Your task to perform on an android device: Empty the shopping cart on ebay.com. Add "panasonic triple a" to the cart on ebay.com, then select checkout. Image 0: 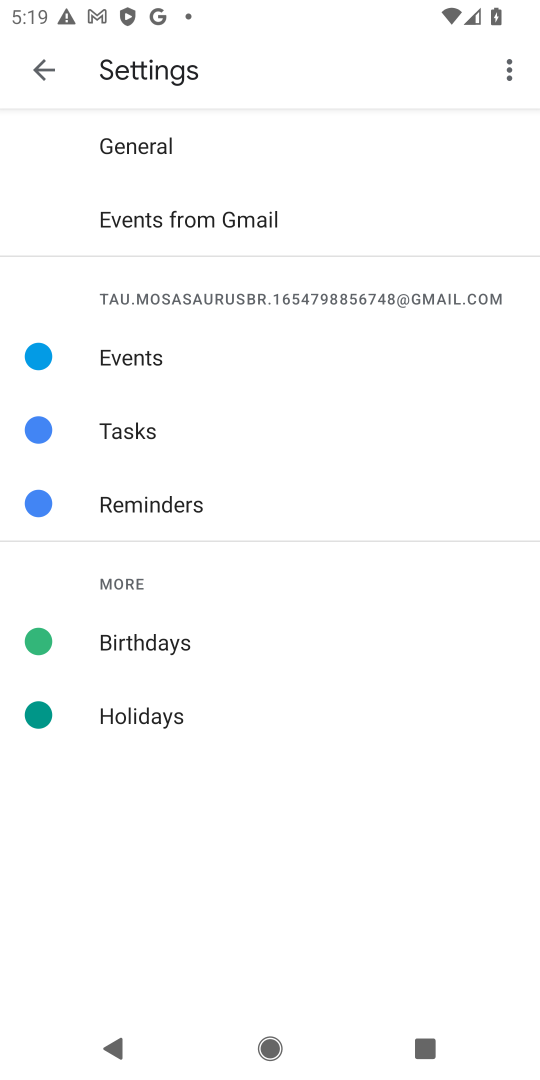
Step 0: press home button
Your task to perform on an android device: Empty the shopping cart on ebay.com. Add "panasonic triple a" to the cart on ebay.com, then select checkout. Image 1: 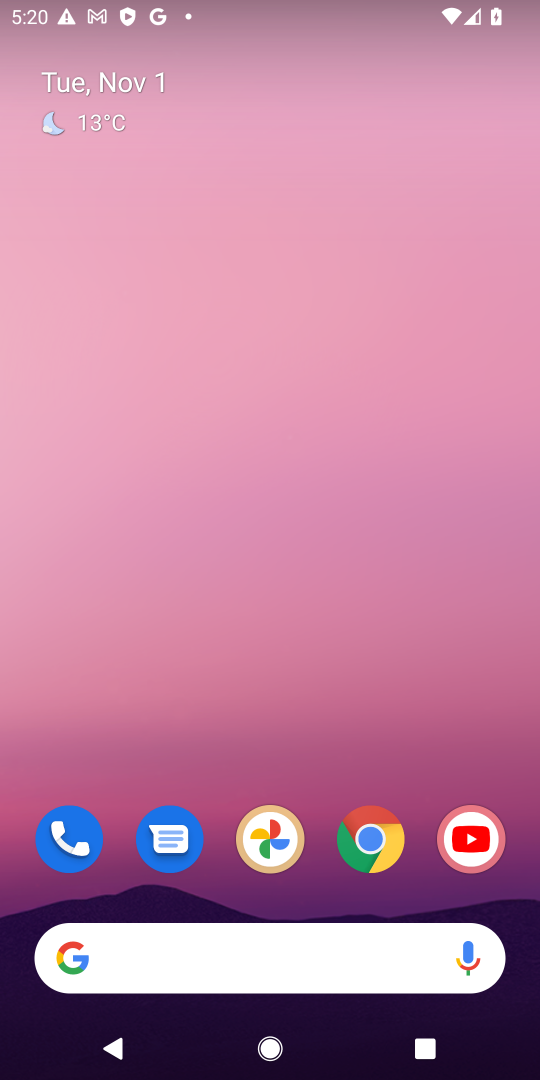
Step 1: click (372, 850)
Your task to perform on an android device: Empty the shopping cart on ebay.com. Add "panasonic triple a" to the cart on ebay.com, then select checkout. Image 2: 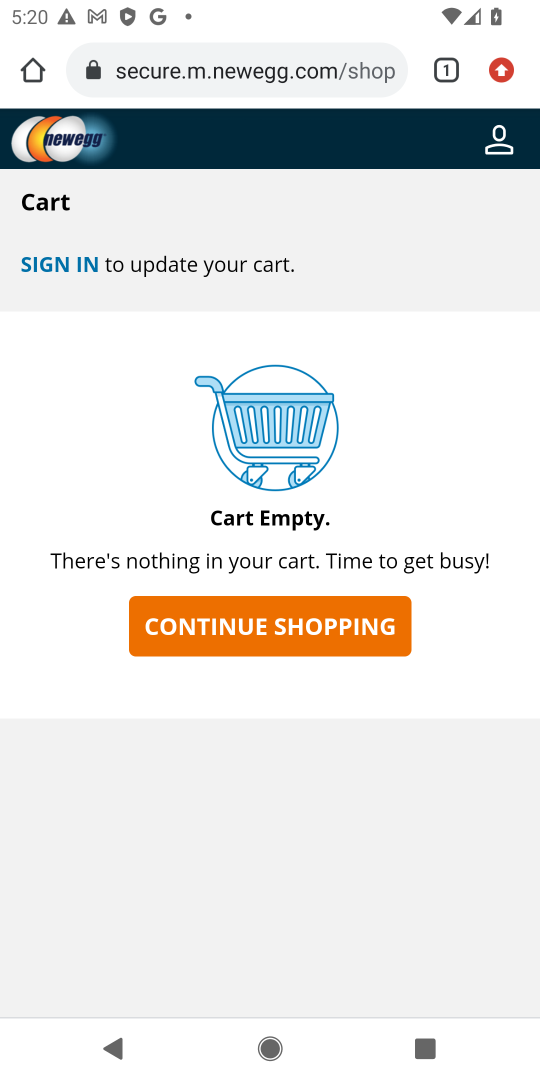
Step 2: click (242, 89)
Your task to perform on an android device: Empty the shopping cart on ebay.com. Add "panasonic triple a" to the cart on ebay.com, then select checkout. Image 3: 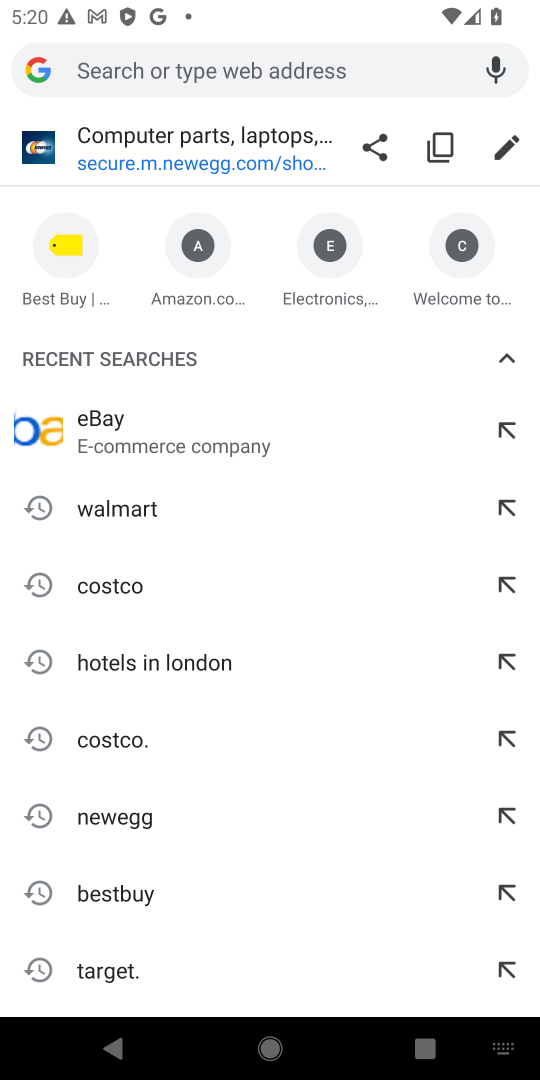
Step 3: type "ebay.com"
Your task to perform on an android device: Empty the shopping cart on ebay.com. Add "panasonic triple a" to the cart on ebay.com, then select checkout. Image 4: 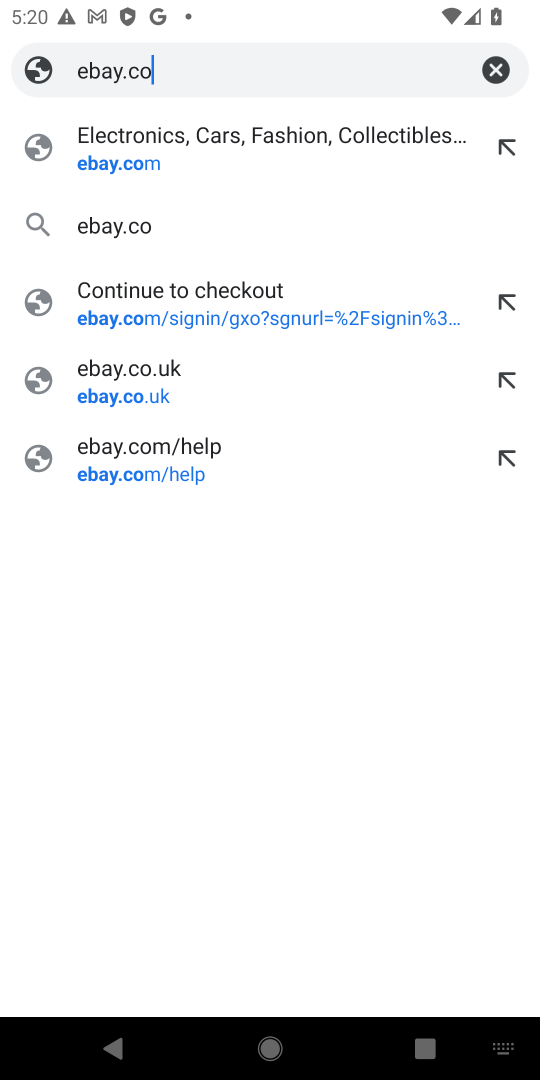
Step 4: press enter
Your task to perform on an android device: Empty the shopping cart on ebay.com. Add "panasonic triple a" to the cart on ebay.com, then select checkout. Image 5: 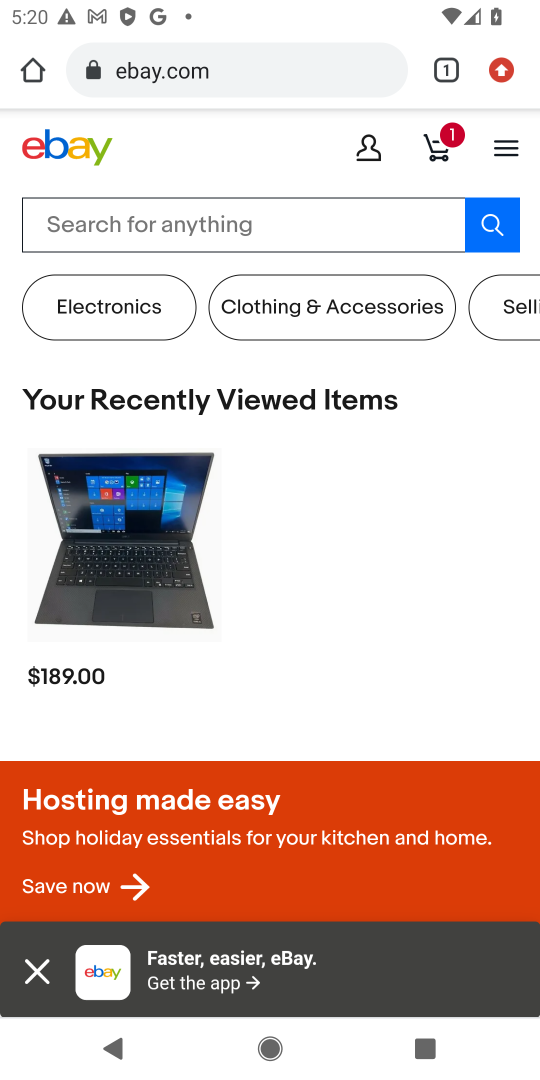
Step 5: click (437, 144)
Your task to perform on an android device: Empty the shopping cart on ebay.com. Add "panasonic triple a" to the cart on ebay.com, then select checkout. Image 6: 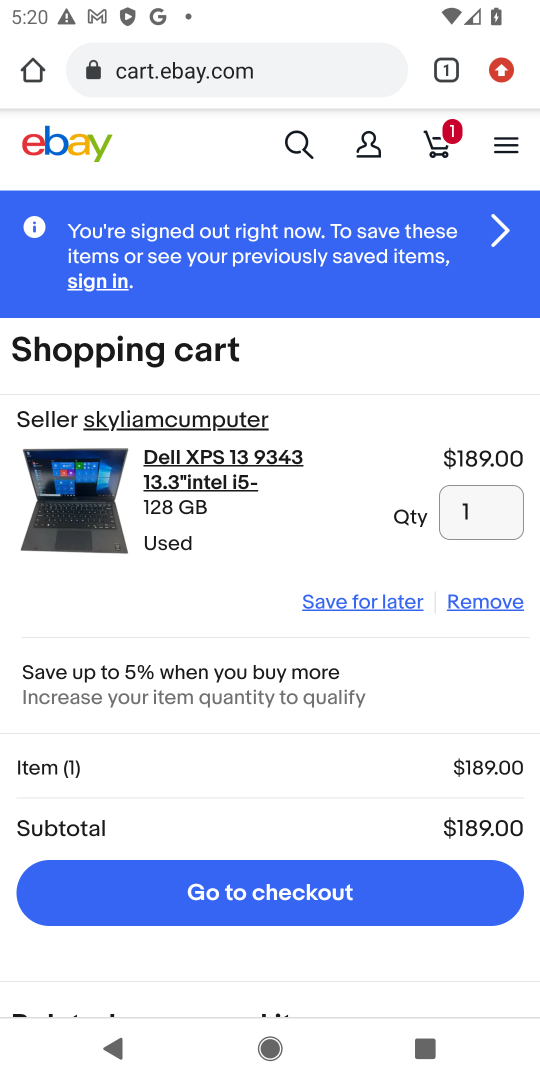
Step 6: click (468, 602)
Your task to perform on an android device: Empty the shopping cart on ebay.com. Add "panasonic triple a" to the cart on ebay.com, then select checkout. Image 7: 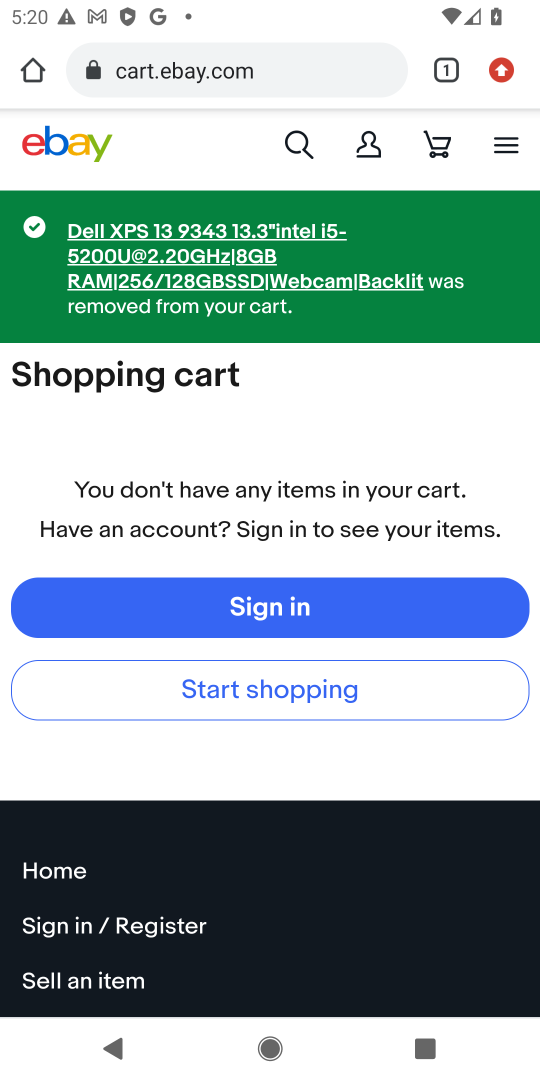
Step 7: click (300, 159)
Your task to perform on an android device: Empty the shopping cart on ebay.com. Add "panasonic triple a" to the cart on ebay.com, then select checkout. Image 8: 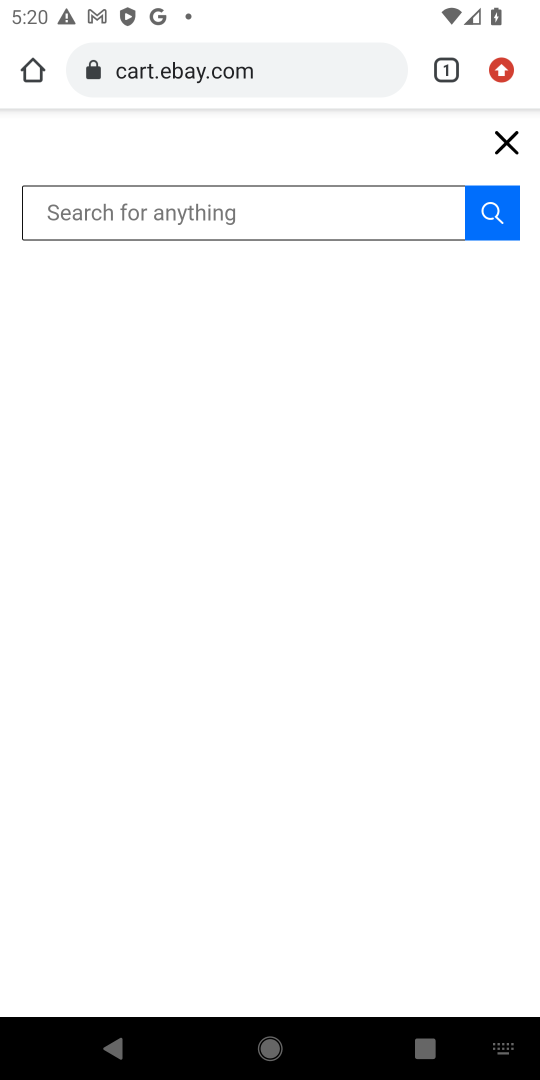
Step 8: type "panasonic triple a"
Your task to perform on an android device: Empty the shopping cart on ebay.com. Add "panasonic triple a" to the cart on ebay.com, then select checkout. Image 9: 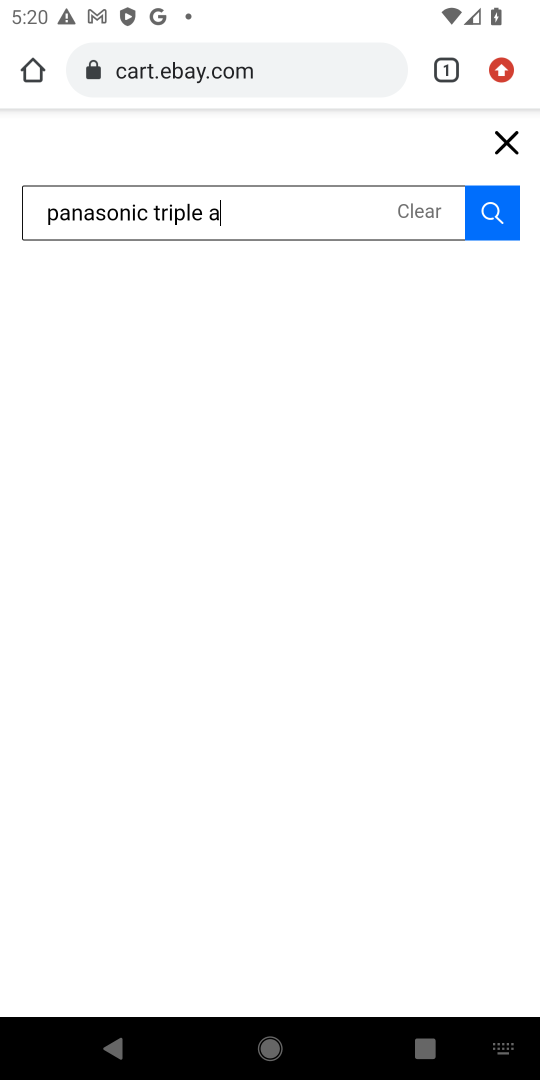
Step 9: click (499, 210)
Your task to perform on an android device: Empty the shopping cart on ebay.com. Add "panasonic triple a" to the cart on ebay.com, then select checkout. Image 10: 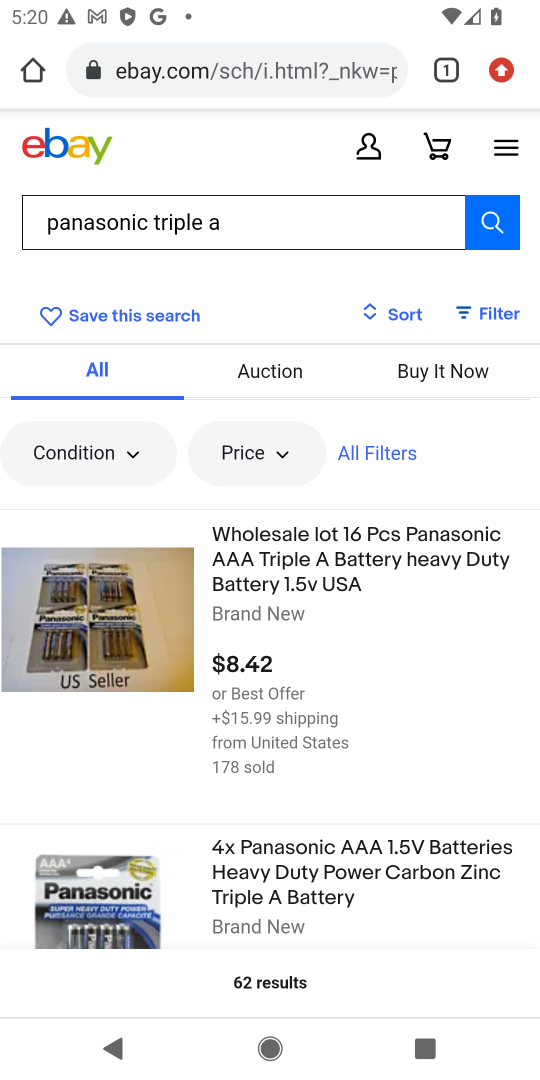
Step 10: drag from (198, 976) to (246, 772)
Your task to perform on an android device: Empty the shopping cart on ebay.com. Add "panasonic triple a" to the cart on ebay.com, then select checkout. Image 11: 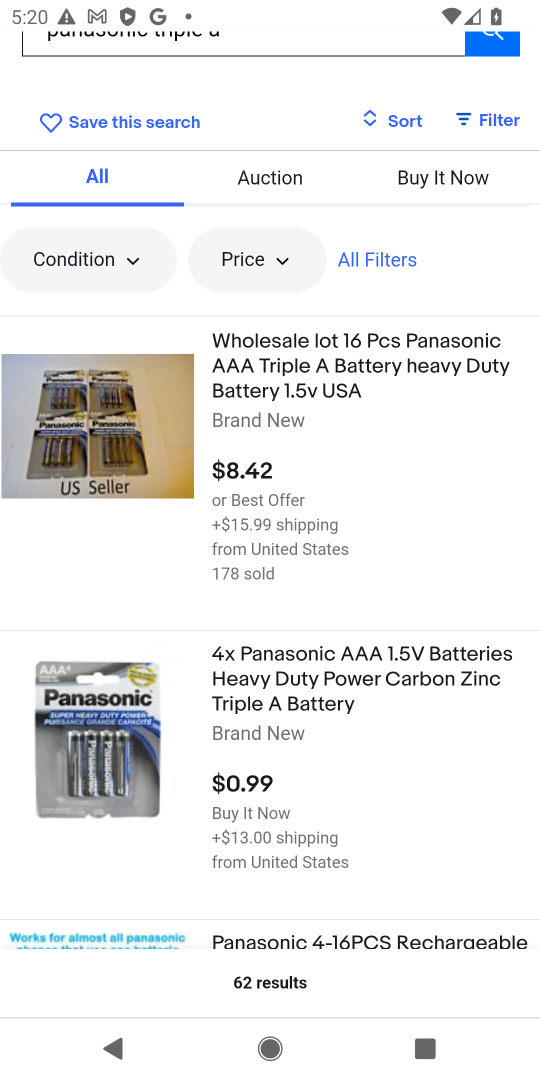
Step 11: drag from (421, 768) to (431, 666)
Your task to perform on an android device: Empty the shopping cart on ebay.com. Add "panasonic triple a" to the cart on ebay.com, then select checkout. Image 12: 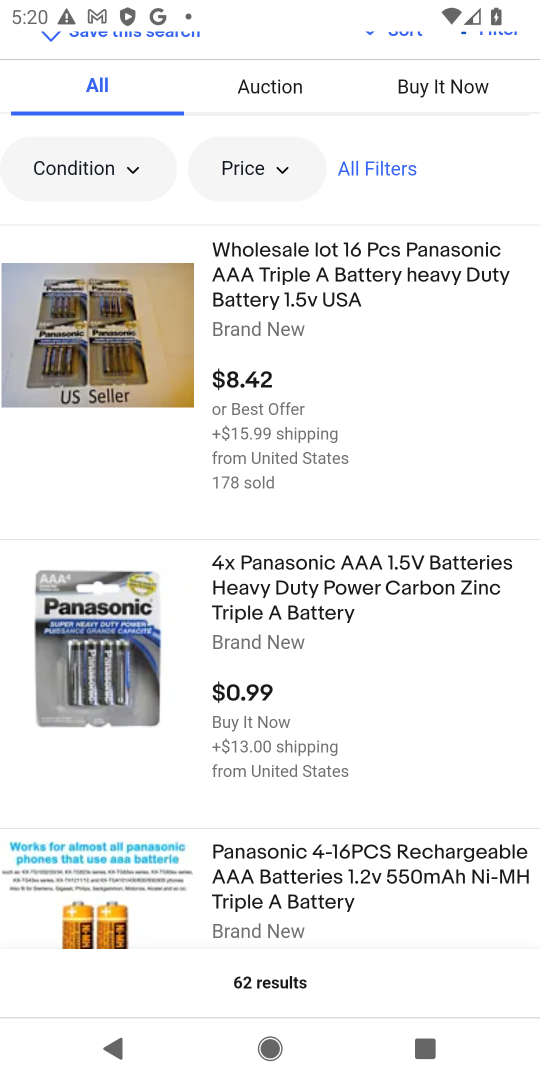
Step 12: click (94, 338)
Your task to perform on an android device: Empty the shopping cart on ebay.com. Add "panasonic triple a" to the cart on ebay.com, then select checkout. Image 13: 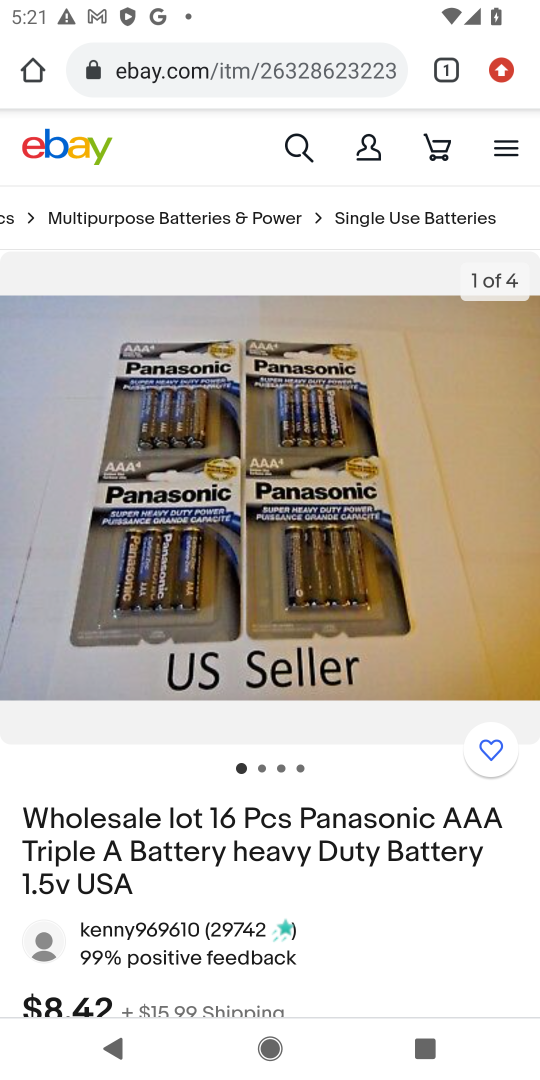
Step 13: drag from (298, 789) to (360, 294)
Your task to perform on an android device: Empty the shopping cart on ebay.com. Add "panasonic triple a" to the cart on ebay.com, then select checkout. Image 14: 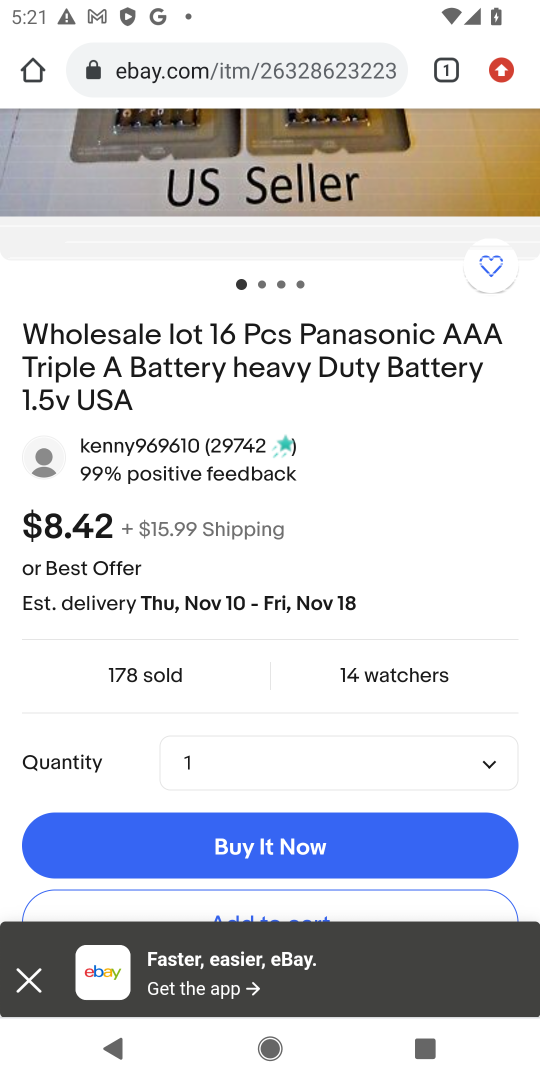
Step 14: drag from (314, 759) to (377, 408)
Your task to perform on an android device: Empty the shopping cart on ebay.com. Add "panasonic triple a" to the cart on ebay.com, then select checkout. Image 15: 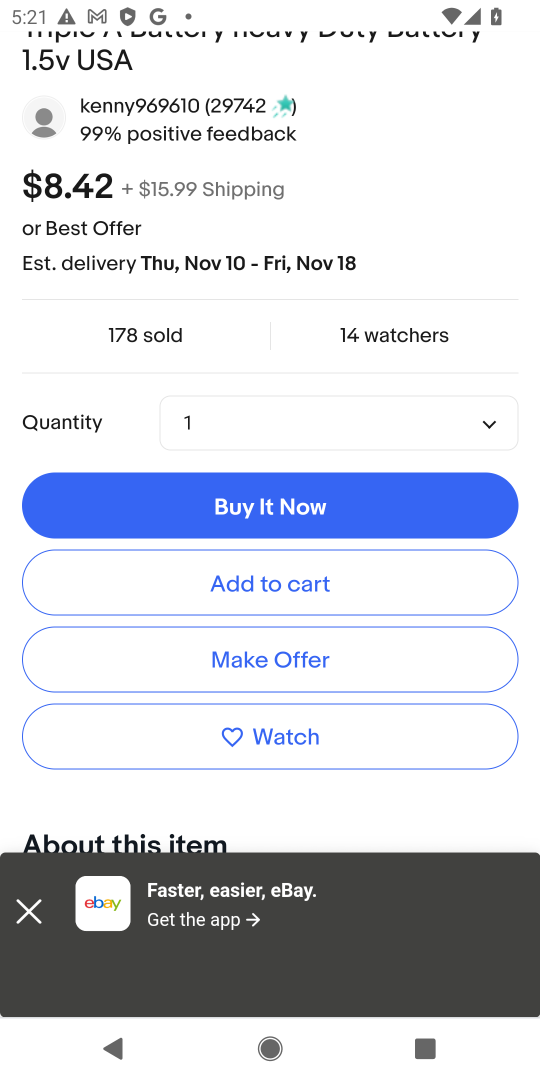
Step 15: click (351, 587)
Your task to perform on an android device: Empty the shopping cart on ebay.com. Add "panasonic triple a" to the cart on ebay.com, then select checkout. Image 16: 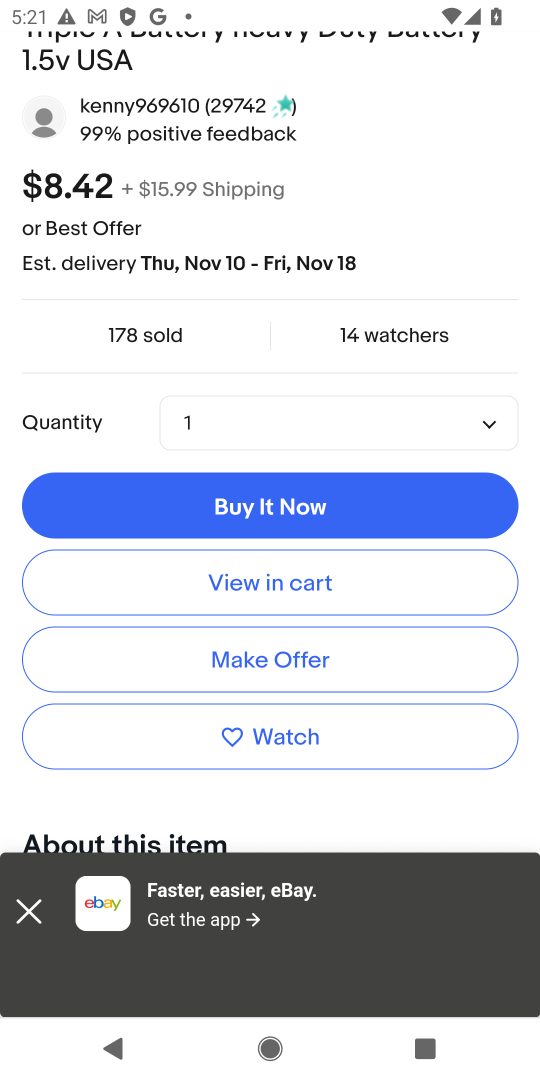
Step 16: click (351, 587)
Your task to perform on an android device: Empty the shopping cart on ebay.com. Add "panasonic triple a" to the cart on ebay.com, then select checkout. Image 17: 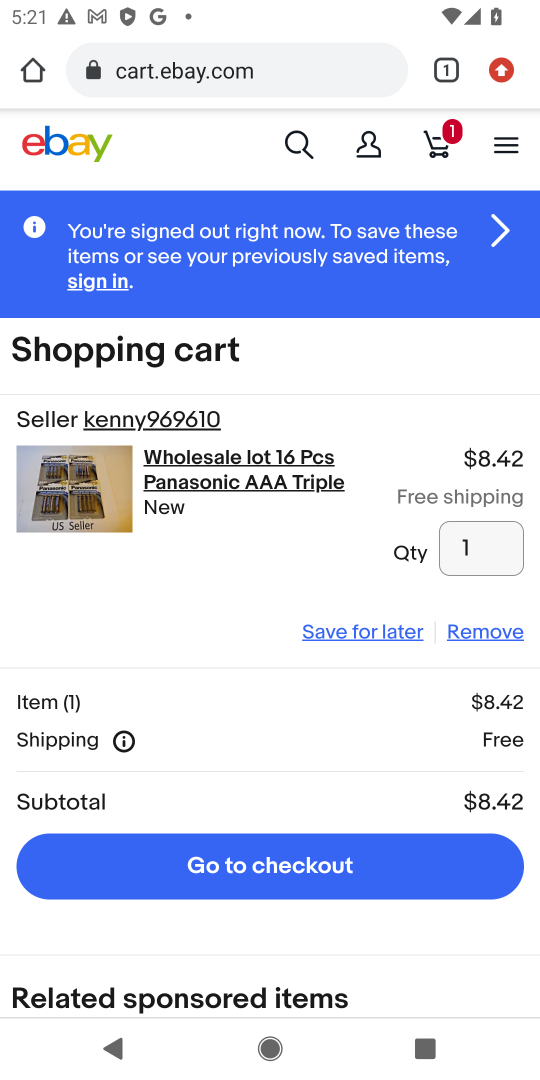
Step 17: click (318, 883)
Your task to perform on an android device: Empty the shopping cart on ebay.com. Add "panasonic triple a" to the cart on ebay.com, then select checkout. Image 18: 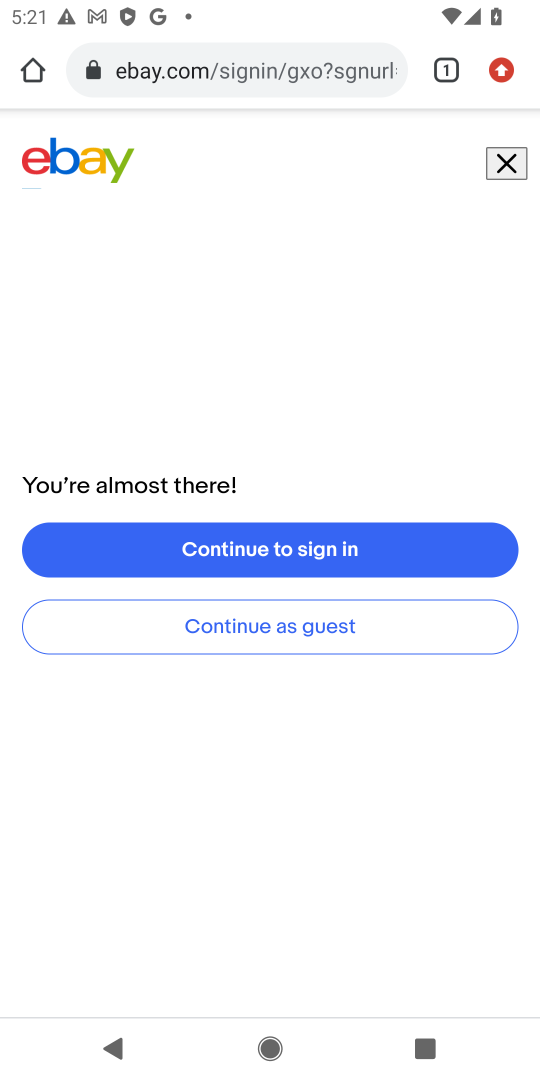
Step 18: task complete